Your task to perform on an android device: turn off priority inbox in the gmail app Image 0: 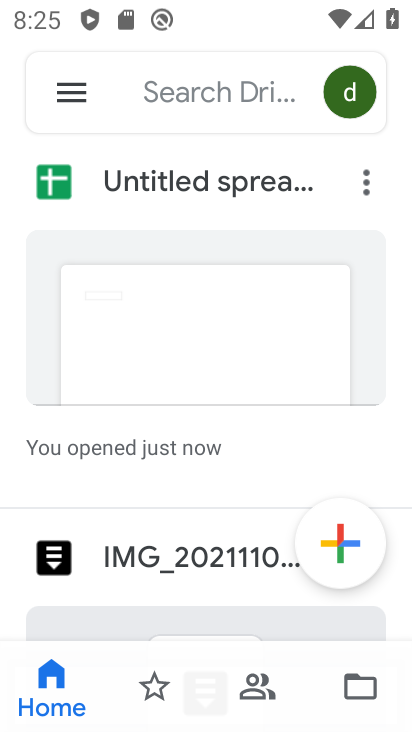
Step 0: press home button
Your task to perform on an android device: turn off priority inbox in the gmail app Image 1: 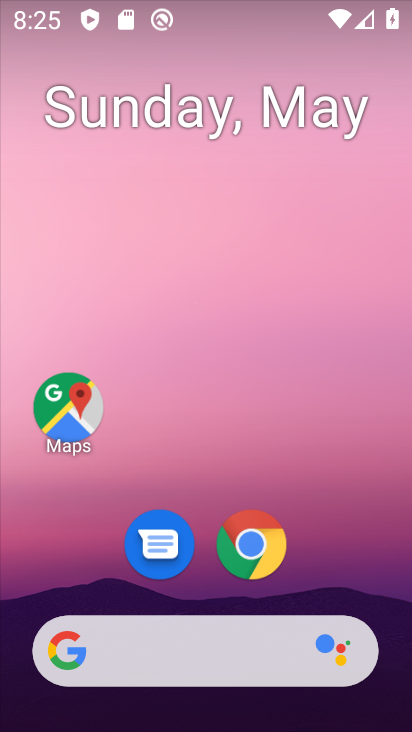
Step 1: drag from (323, 558) to (371, 64)
Your task to perform on an android device: turn off priority inbox in the gmail app Image 2: 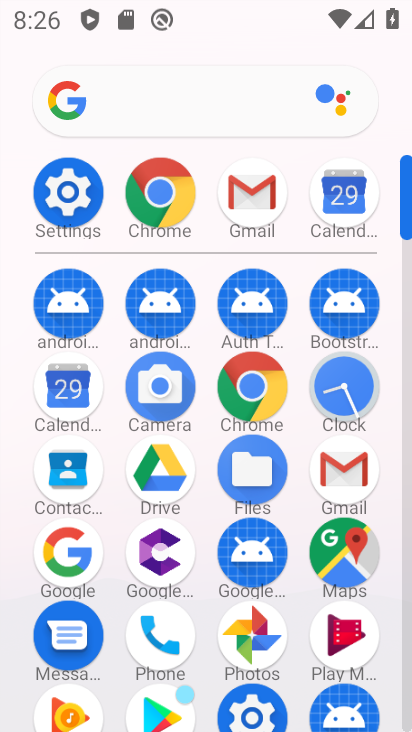
Step 2: click (246, 186)
Your task to perform on an android device: turn off priority inbox in the gmail app Image 3: 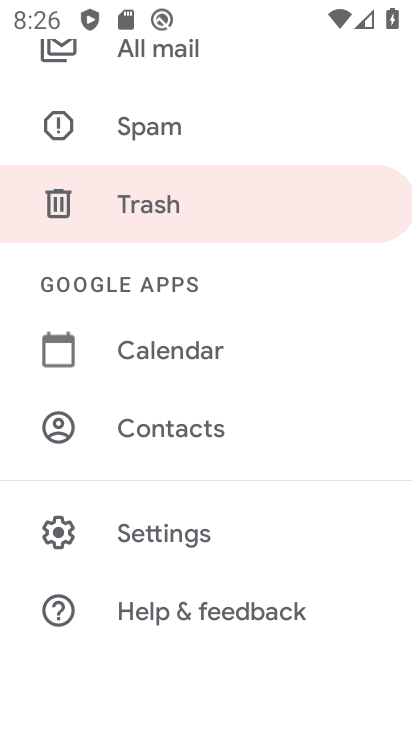
Step 3: drag from (172, 228) to (130, 693)
Your task to perform on an android device: turn off priority inbox in the gmail app Image 4: 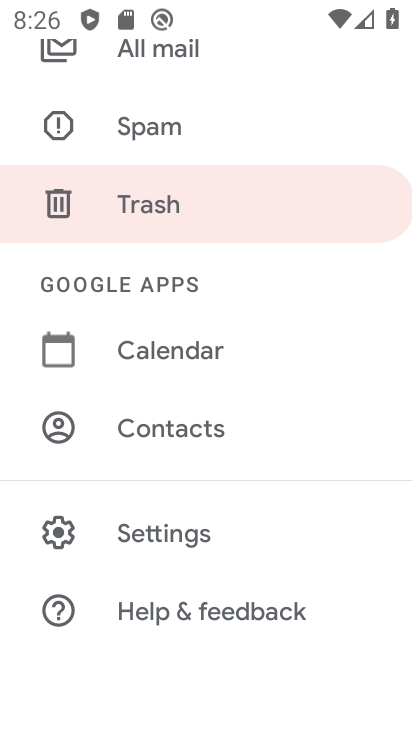
Step 4: drag from (186, 147) to (173, 645)
Your task to perform on an android device: turn off priority inbox in the gmail app Image 5: 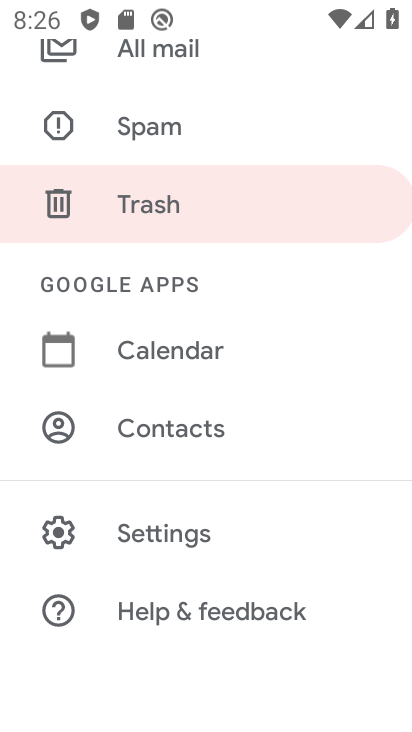
Step 5: drag from (207, 286) to (210, 731)
Your task to perform on an android device: turn off priority inbox in the gmail app Image 6: 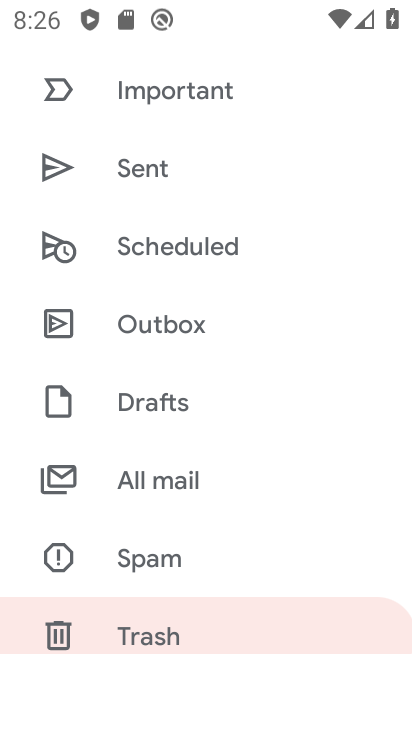
Step 6: drag from (202, 172) to (227, 641)
Your task to perform on an android device: turn off priority inbox in the gmail app Image 7: 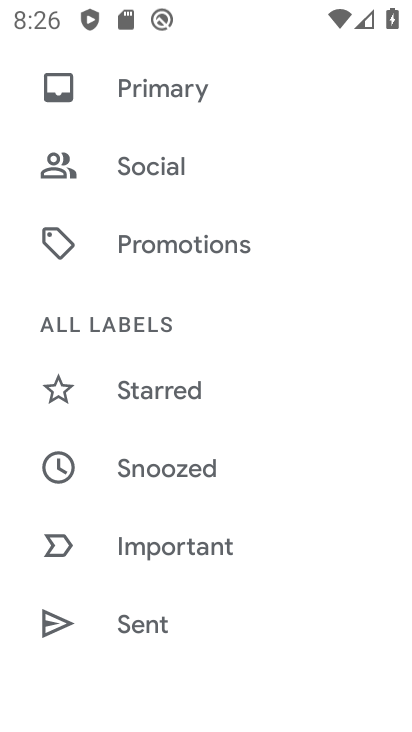
Step 7: drag from (239, 192) to (190, 731)
Your task to perform on an android device: turn off priority inbox in the gmail app Image 8: 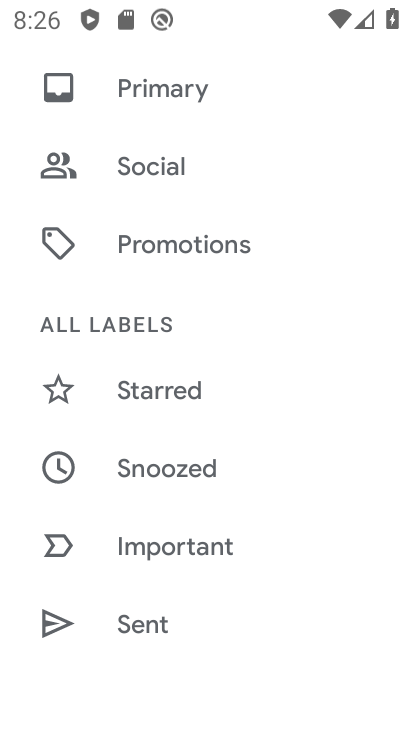
Step 8: drag from (215, 226) to (204, 524)
Your task to perform on an android device: turn off priority inbox in the gmail app Image 9: 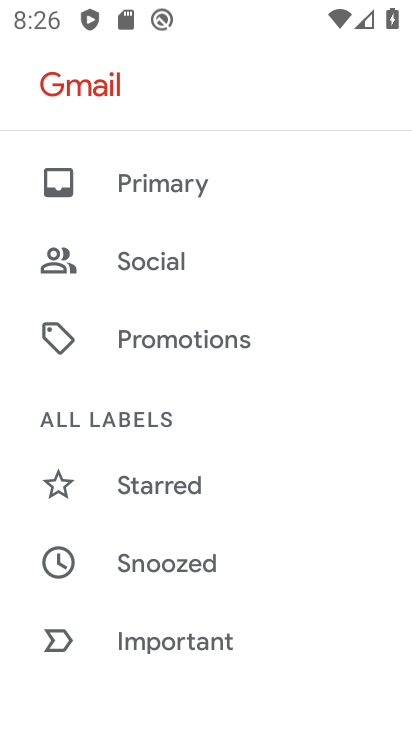
Step 9: drag from (226, 530) to (246, 107)
Your task to perform on an android device: turn off priority inbox in the gmail app Image 10: 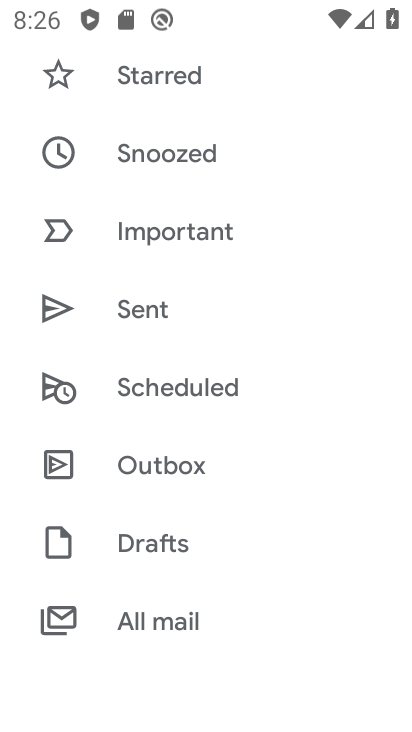
Step 10: drag from (286, 598) to (293, 134)
Your task to perform on an android device: turn off priority inbox in the gmail app Image 11: 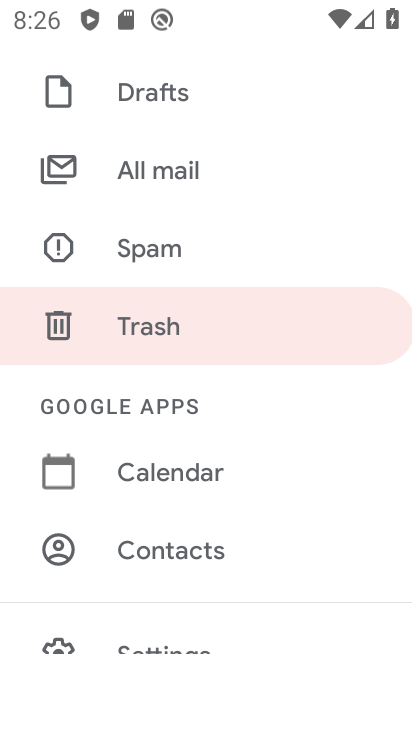
Step 11: drag from (217, 608) to (283, 66)
Your task to perform on an android device: turn off priority inbox in the gmail app Image 12: 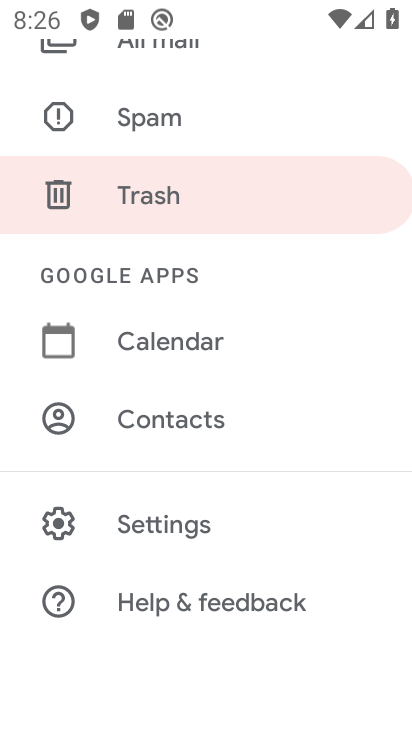
Step 12: click (139, 506)
Your task to perform on an android device: turn off priority inbox in the gmail app Image 13: 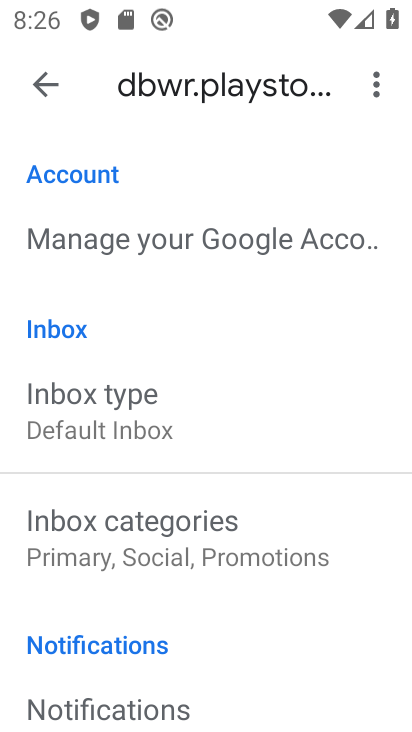
Step 13: click (124, 407)
Your task to perform on an android device: turn off priority inbox in the gmail app Image 14: 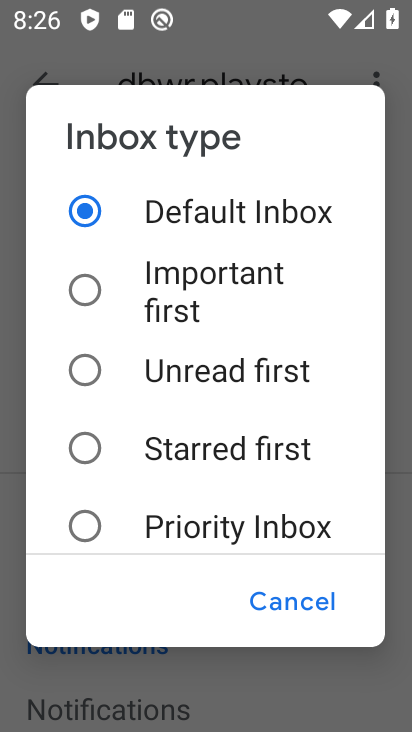
Step 14: task complete